Your task to perform on an android device: Turn on the flashlight Image 0: 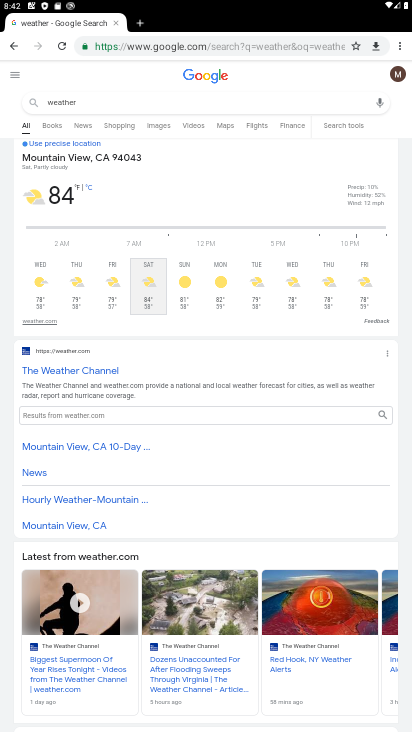
Step 0: press home button
Your task to perform on an android device: Turn on the flashlight Image 1: 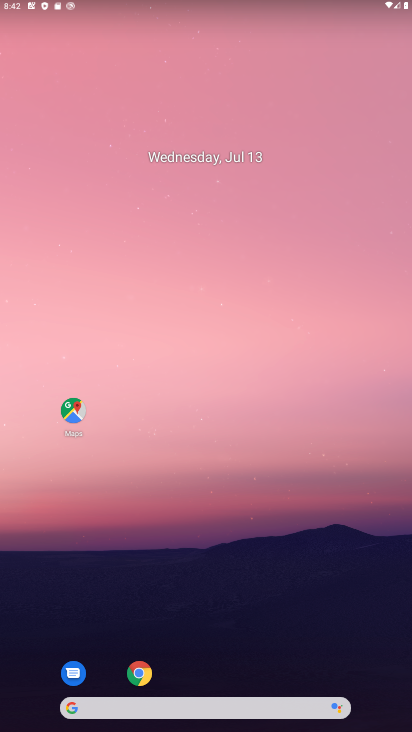
Step 1: drag from (287, 617) to (326, 264)
Your task to perform on an android device: Turn on the flashlight Image 2: 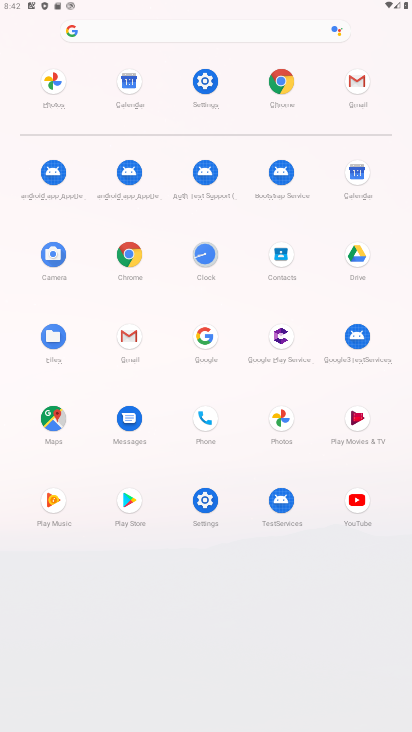
Step 2: click (207, 78)
Your task to perform on an android device: Turn on the flashlight Image 3: 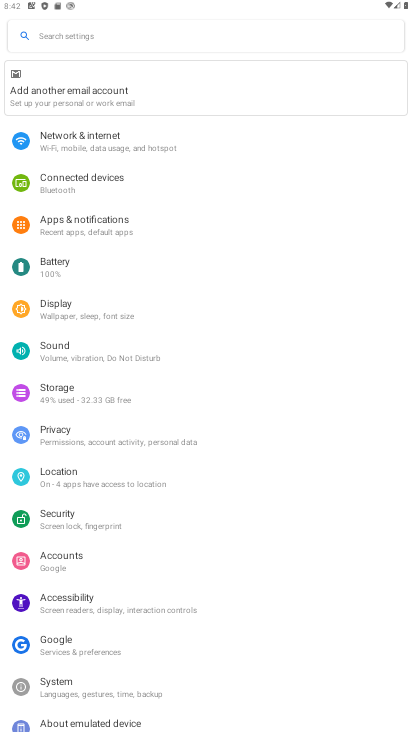
Step 3: click (54, 305)
Your task to perform on an android device: Turn on the flashlight Image 4: 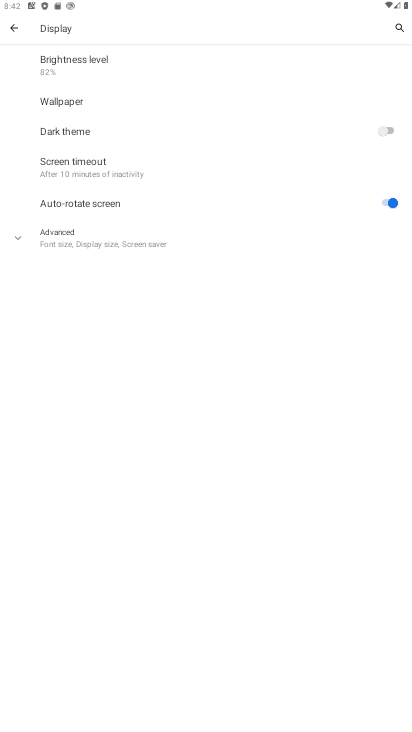
Step 4: task complete